Your task to perform on an android device: Open location settings Image 0: 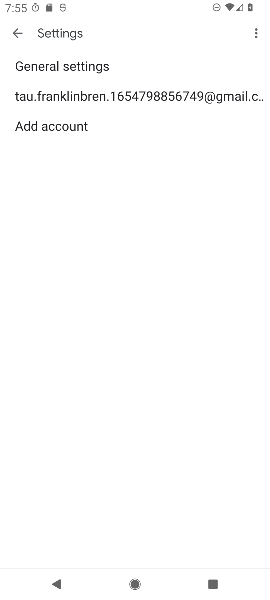
Step 0: press home button
Your task to perform on an android device: Open location settings Image 1: 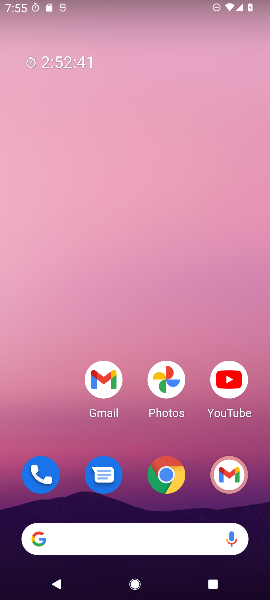
Step 1: drag from (49, 375) to (61, 161)
Your task to perform on an android device: Open location settings Image 2: 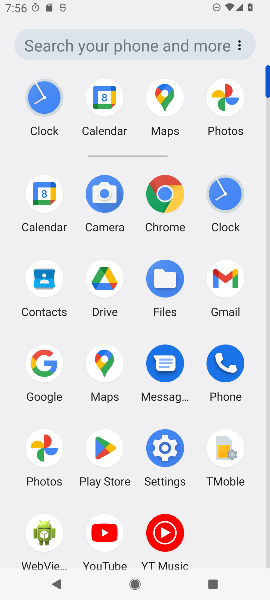
Step 2: click (164, 452)
Your task to perform on an android device: Open location settings Image 3: 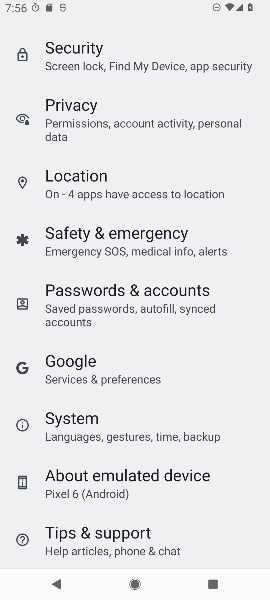
Step 3: drag from (244, 262) to (243, 308)
Your task to perform on an android device: Open location settings Image 4: 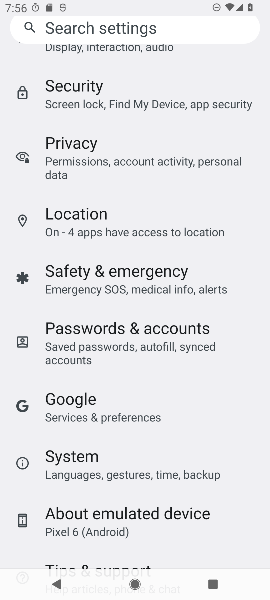
Step 4: drag from (254, 198) to (249, 293)
Your task to perform on an android device: Open location settings Image 5: 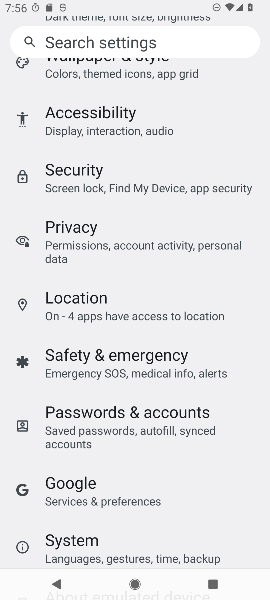
Step 5: drag from (255, 140) to (251, 248)
Your task to perform on an android device: Open location settings Image 6: 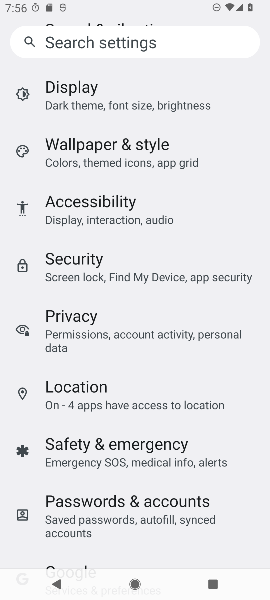
Step 6: drag from (244, 157) to (244, 274)
Your task to perform on an android device: Open location settings Image 7: 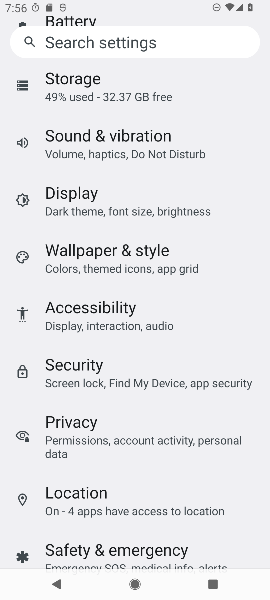
Step 7: drag from (245, 161) to (239, 272)
Your task to perform on an android device: Open location settings Image 8: 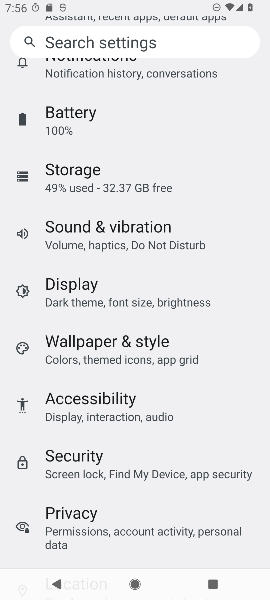
Step 8: drag from (238, 123) to (244, 246)
Your task to perform on an android device: Open location settings Image 9: 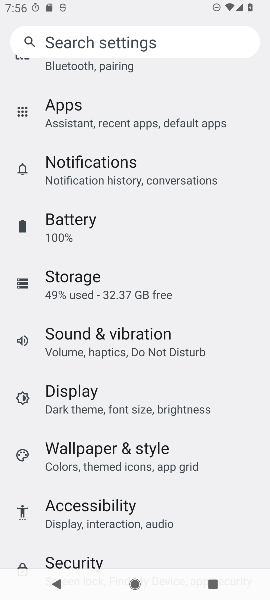
Step 9: drag from (253, 116) to (247, 229)
Your task to perform on an android device: Open location settings Image 10: 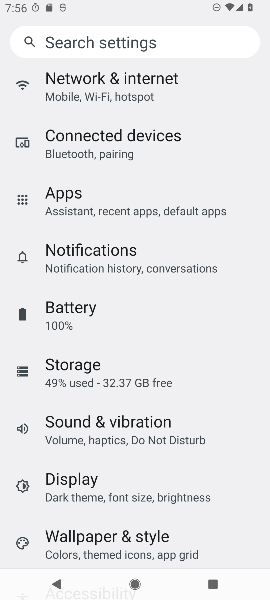
Step 10: drag from (242, 144) to (239, 246)
Your task to perform on an android device: Open location settings Image 11: 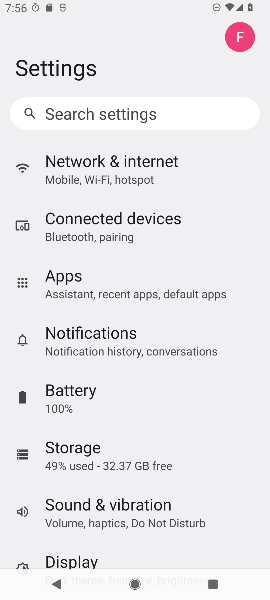
Step 11: drag from (231, 151) to (231, 226)
Your task to perform on an android device: Open location settings Image 12: 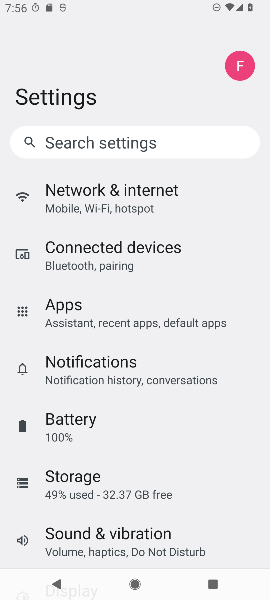
Step 12: drag from (243, 365) to (250, 271)
Your task to perform on an android device: Open location settings Image 13: 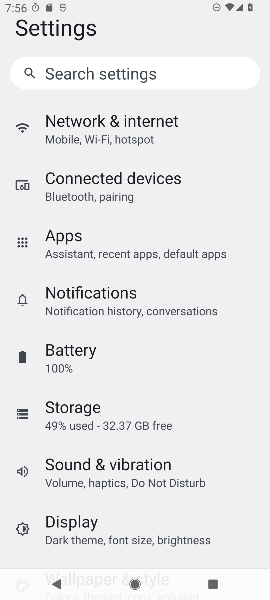
Step 13: drag from (241, 364) to (245, 265)
Your task to perform on an android device: Open location settings Image 14: 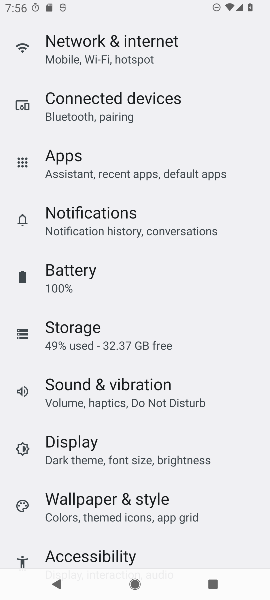
Step 14: drag from (223, 381) to (226, 286)
Your task to perform on an android device: Open location settings Image 15: 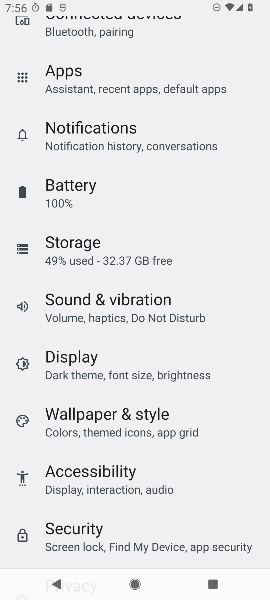
Step 15: drag from (222, 425) to (227, 312)
Your task to perform on an android device: Open location settings Image 16: 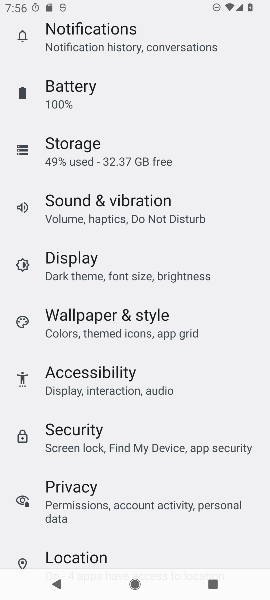
Step 16: drag from (215, 379) to (226, 315)
Your task to perform on an android device: Open location settings Image 17: 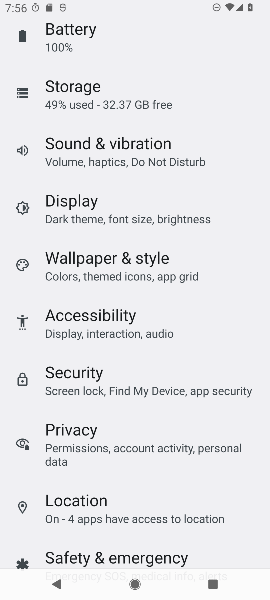
Step 17: drag from (224, 427) to (227, 307)
Your task to perform on an android device: Open location settings Image 18: 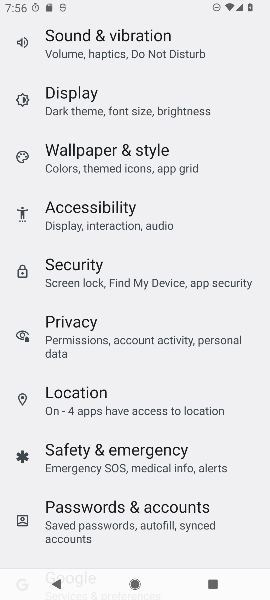
Step 18: drag from (237, 441) to (245, 331)
Your task to perform on an android device: Open location settings Image 19: 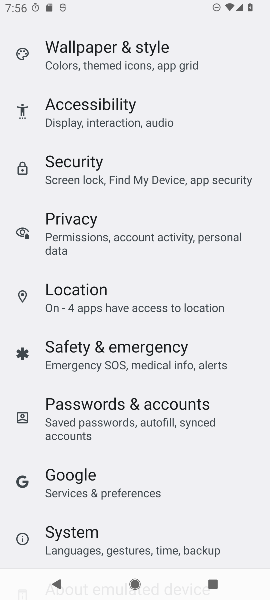
Step 19: click (171, 310)
Your task to perform on an android device: Open location settings Image 20: 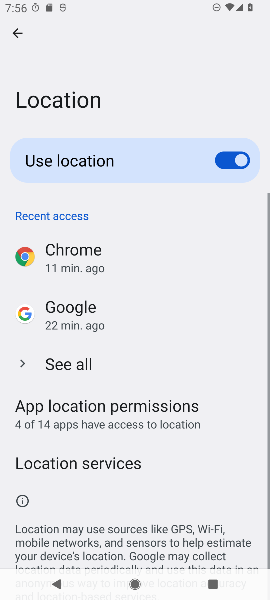
Step 20: task complete